Your task to perform on an android device: change your default location settings in chrome Image 0: 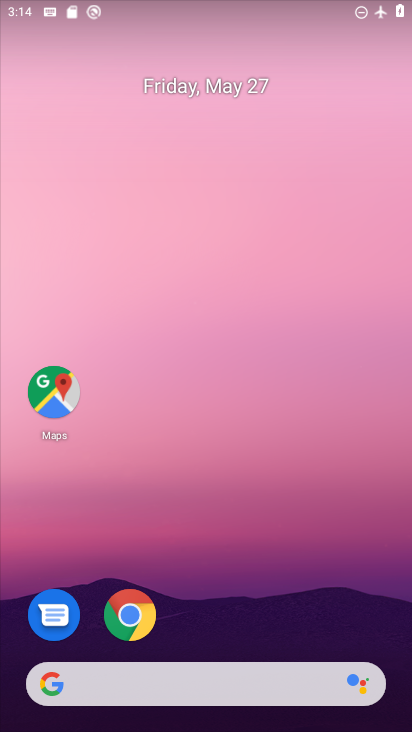
Step 0: drag from (286, 522) to (169, 7)
Your task to perform on an android device: change your default location settings in chrome Image 1: 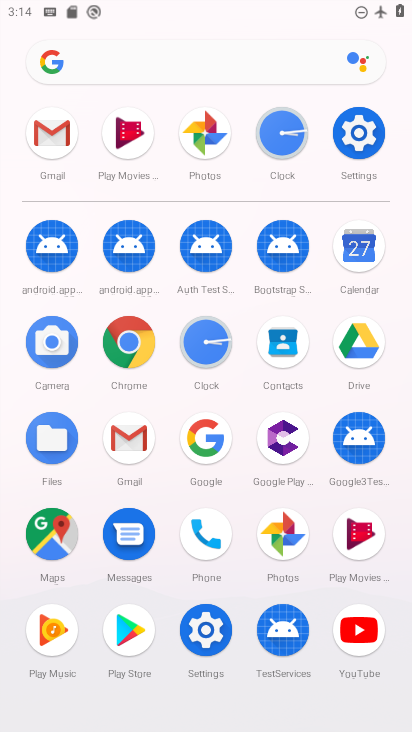
Step 1: click (140, 344)
Your task to perform on an android device: change your default location settings in chrome Image 2: 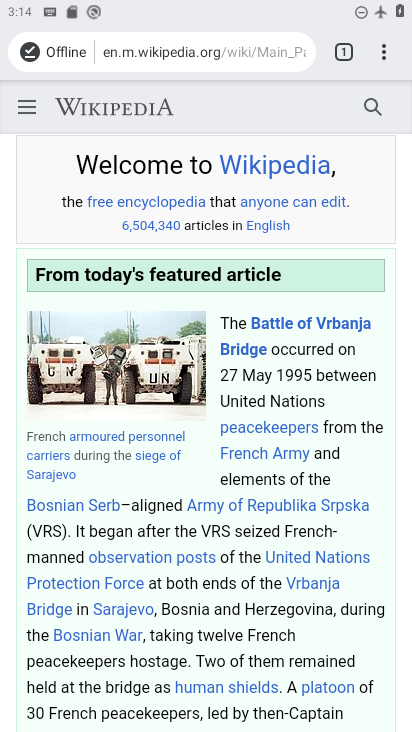
Step 2: click (379, 50)
Your task to perform on an android device: change your default location settings in chrome Image 3: 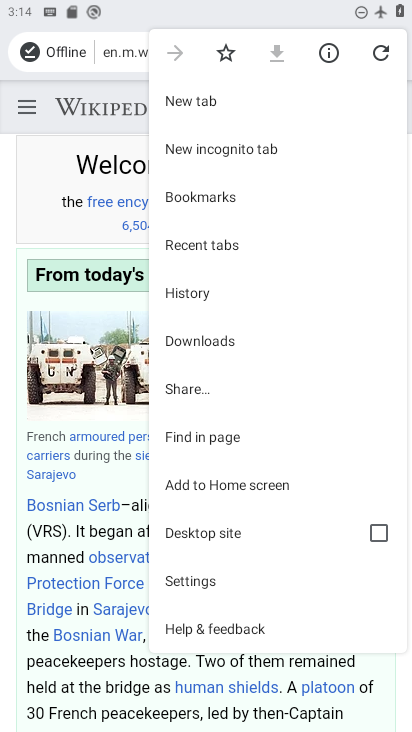
Step 3: click (237, 589)
Your task to perform on an android device: change your default location settings in chrome Image 4: 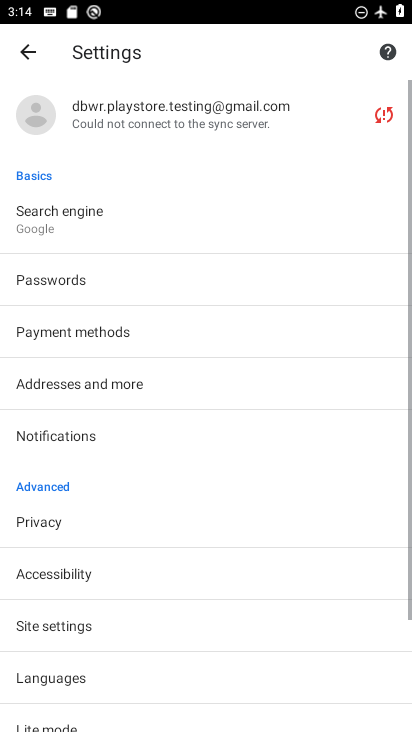
Step 4: drag from (166, 609) to (203, 172)
Your task to perform on an android device: change your default location settings in chrome Image 5: 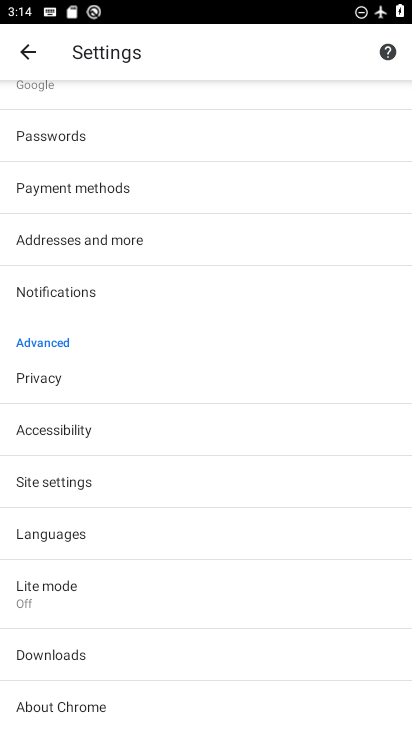
Step 5: click (99, 476)
Your task to perform on an android device: change your default location settings in chrome Image 6: 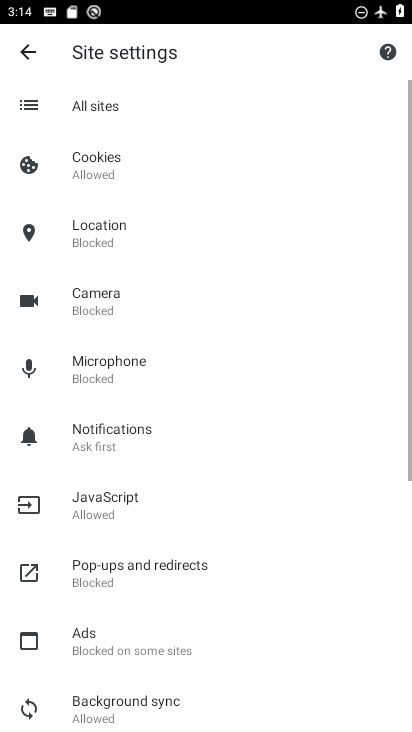
Step 6: click (97, 221)
Your task to perform on an android device: change your default location settings in chrome Image 7: 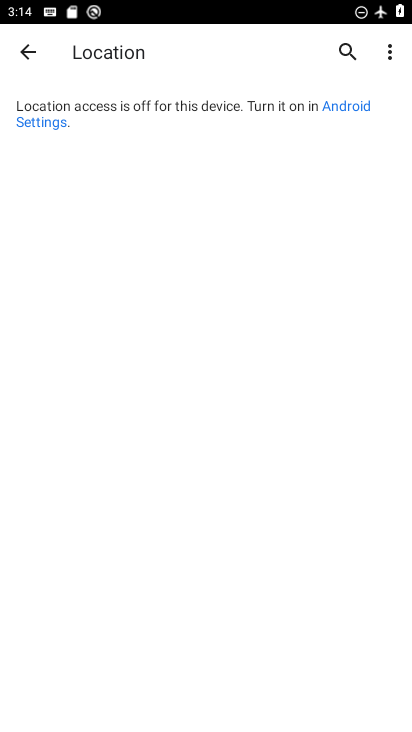
Step 7: click (362, 103)
Your task to perform on an android device: change your default location settings in chrome Image 8: 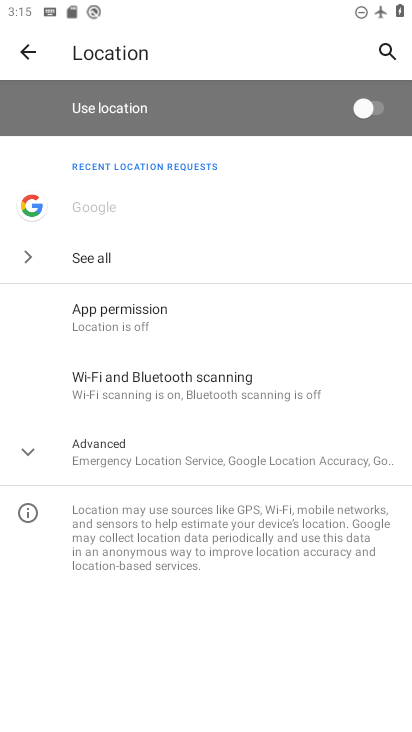
Step 8: click (371, 91)
Your task to perform on an android device: change your default location settings in chrome Image 9: 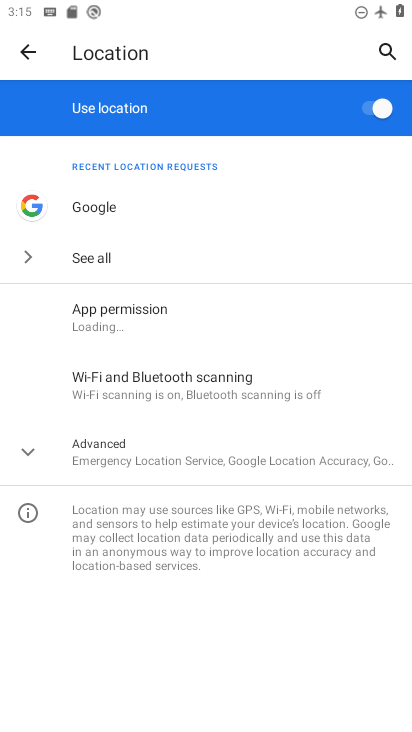
Step 9: task complete